Your task to perform on an android device: manage bookmarks in the chrome app Image 0: 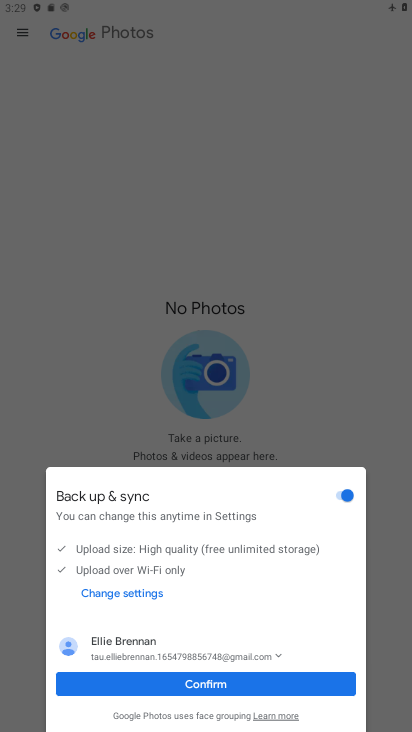
Step 0: press home button
Your task to perform on an android device: manage bookmarks in the chrome app Image 1: 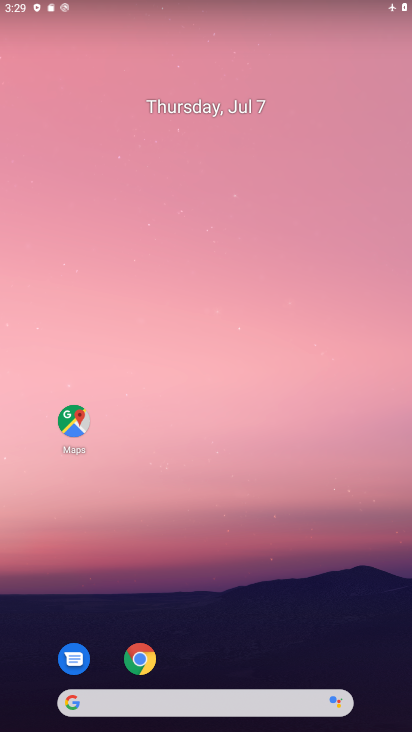
Step 1: click (143, 656)
Your task to perform on an android device: manage bookmarks in the chrome app Image 2: 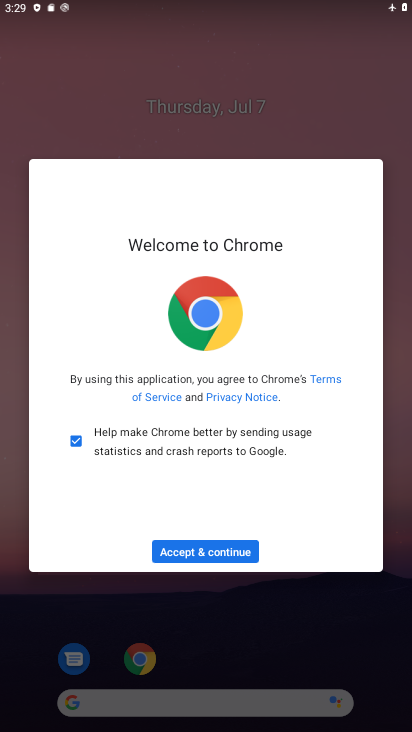
Step 2: click (228, 551)
Your task to perform on an android device: manage bookmarks in the chrome app Image 3: 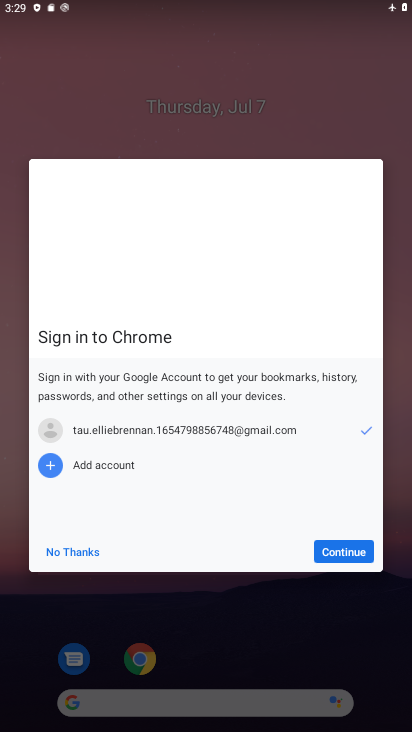
Step 3: click (352, 550)
Your task to perform on an android device: manage bookmarks in the chrome app Image 4: 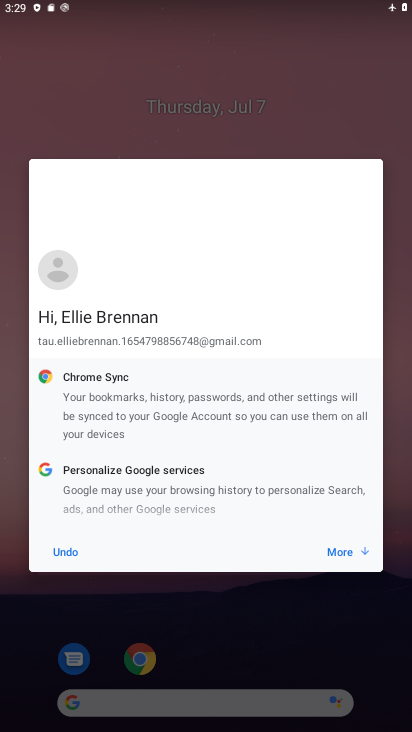
Step 4: click (340, 551)
Your task to perform on an android device: manage bookmarks in the chrome app Image 5: 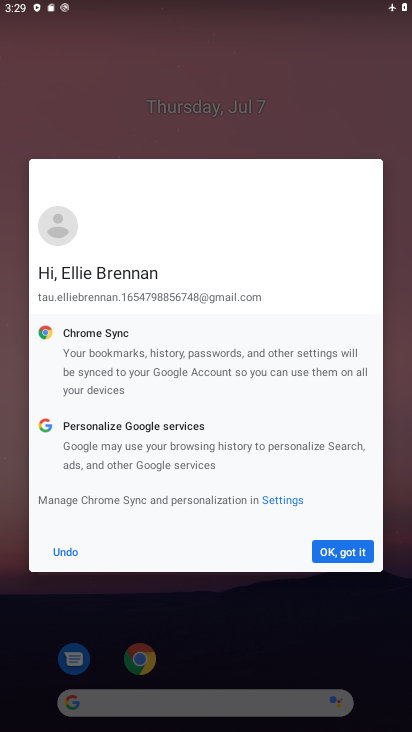
Step 5: click (340, 551)
Your task to perform on an android device: manage bookmarks in the chrome app Image 6: 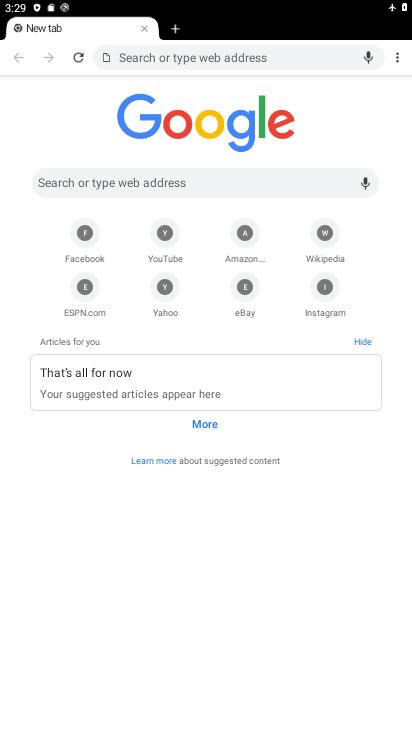
Step 6: click (392, 55)
Your task to perform on an android device: manage bookmarks in the chrome app Image 7: 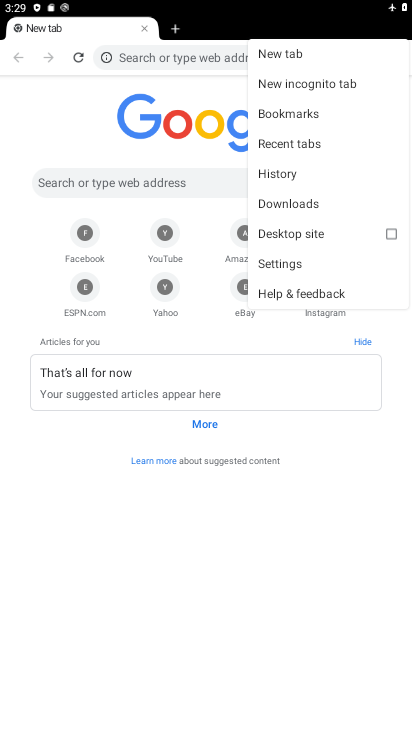
Step 7: click (295, 114)
Your task to perform on an android device: manage bookmarks in the chrome app Image 8: 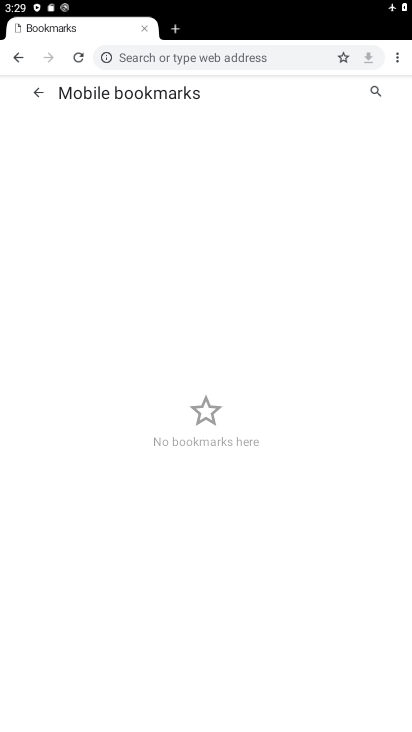
Step 8: task complete